Your task to perform on an android device: Go to Yahoo.com Image 0: 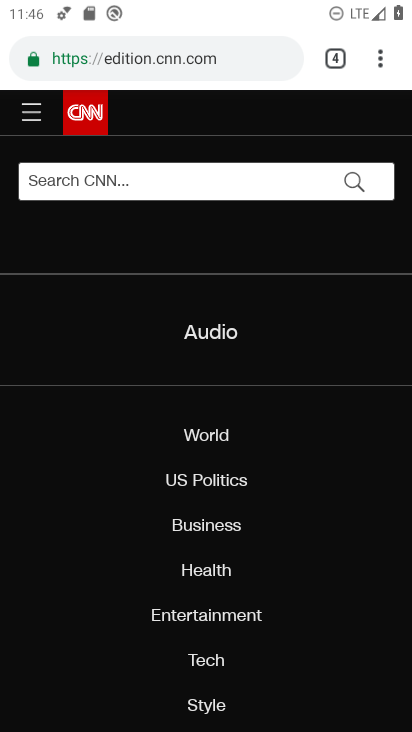
Step 0: click (337, 47)
Your task to perform on an android device: Go to Yahoo.com Image 1: 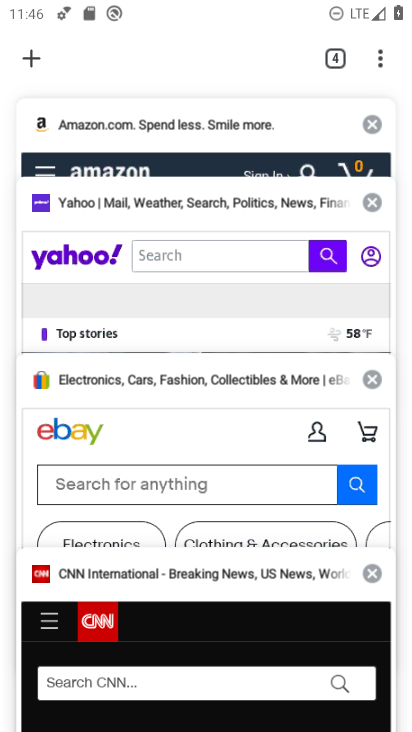
Step 1: click (81, 206)
Your task to perform on an android device: Go to Yahoo.com Image 2: 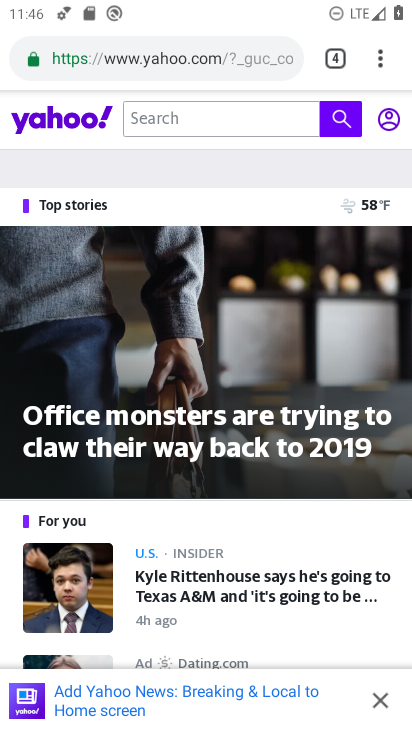
Step 2: task complete